Your task to perform on an android device: Go to sound settings Image 0: 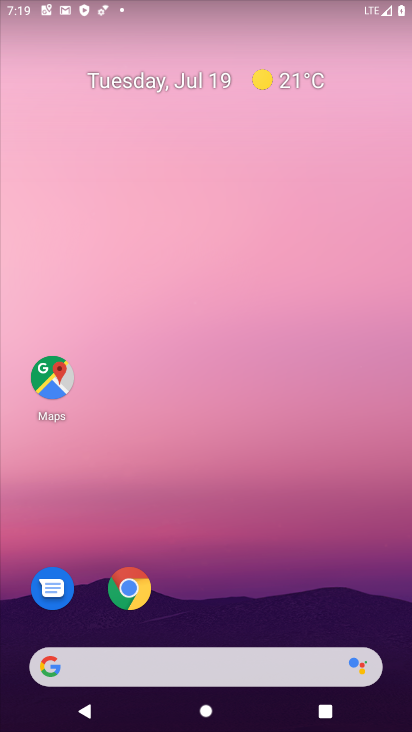
Step 0: drag from (241, 551) to (248, 97)
Your task to perform on an android device: Go to sound settings Image 1: 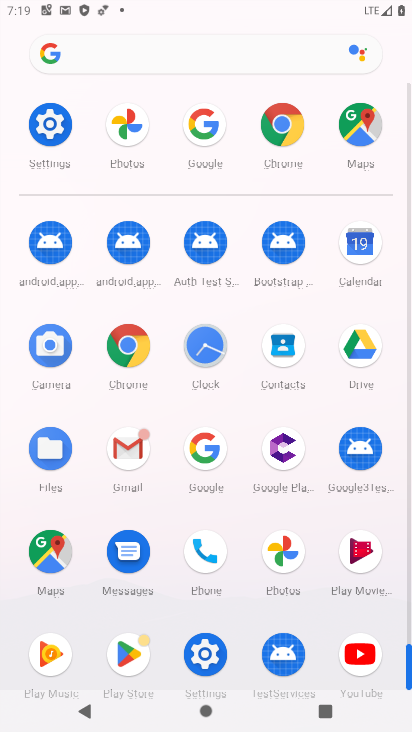
Step 1: click (201, 656)
Your task to perform on an android device: Go to sound settings Image 2: 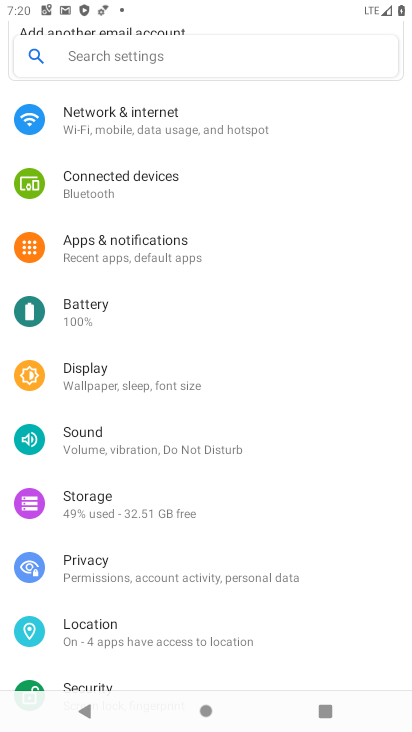
Step 2: click (158, 444)
Your task to perform on an android device: Go to sound settings Image 3: 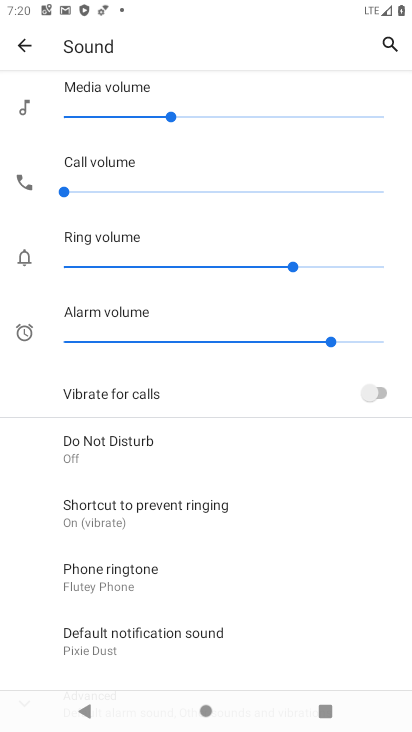
Step 3: task complete